Your task to perform on an android device: How much does a 3 bedroom apartment rent for in New York? Image 0: 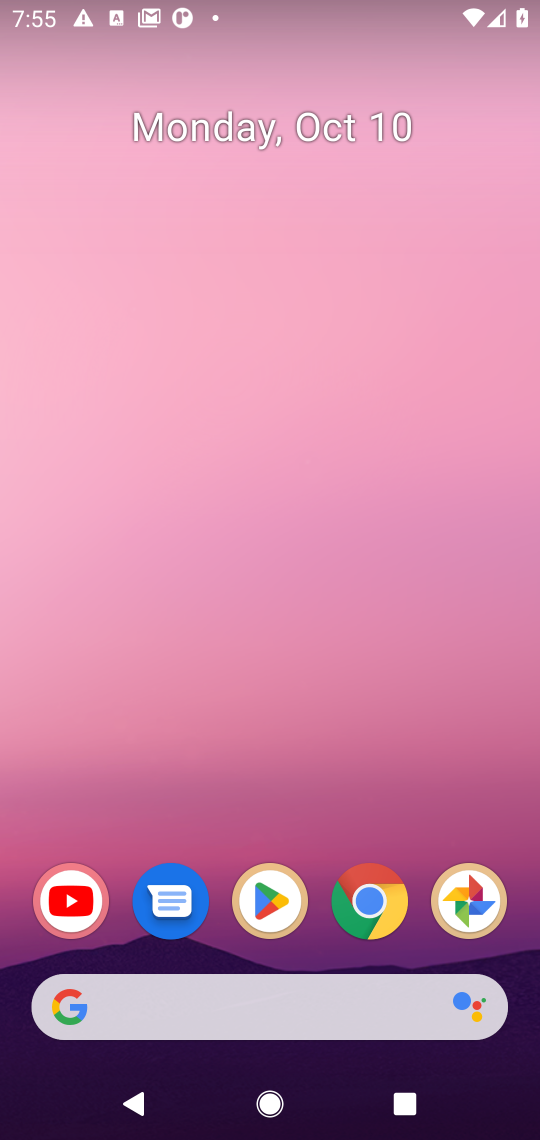
Step 0: click (180, 1004)
Your task to perform on an android device: How much does a 3 bedroom apartment rent for in New York? Image 1: 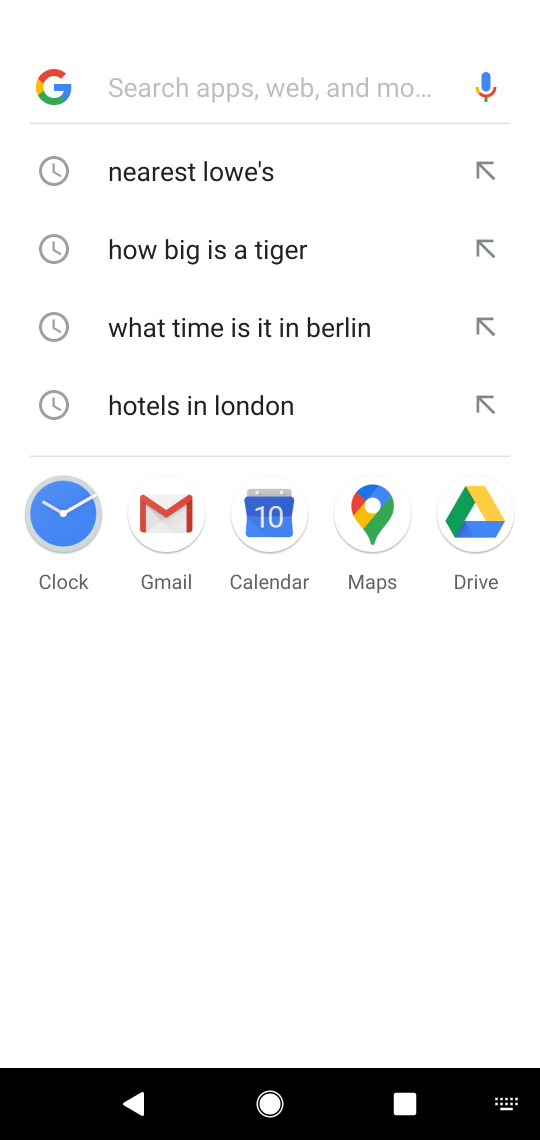
Step 1: type "3 bedroom apartment rent for in New York"
Your task to perform on an android device: How much does a 3 bedroom apartment rent for in New York? Image 2: 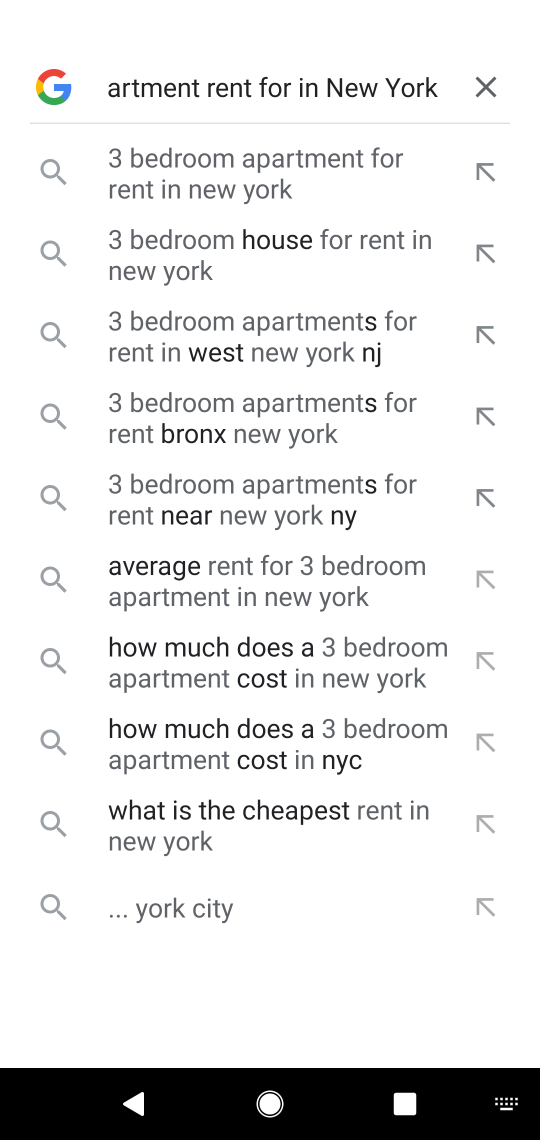
Step 2: press enter
Your task to perform on an android device: How much does a 3 bedroom apartment rent for in New York? Image 3: 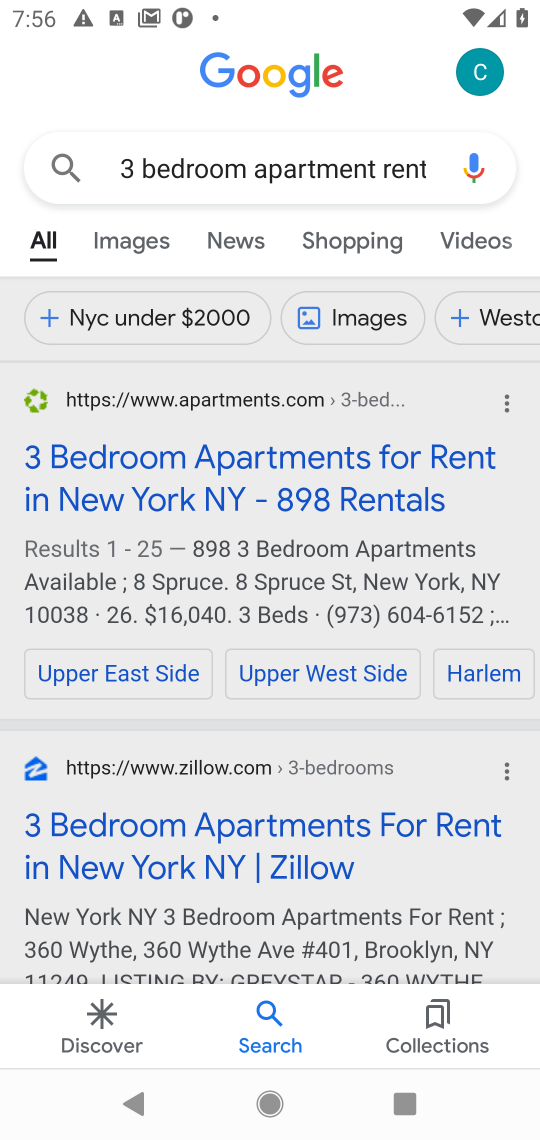
Step 3: drag from (274, 727) to (285, 446)
Your task to perform on an android device: How much does a 3 bedroom apartment rent for in New York? Image 4: 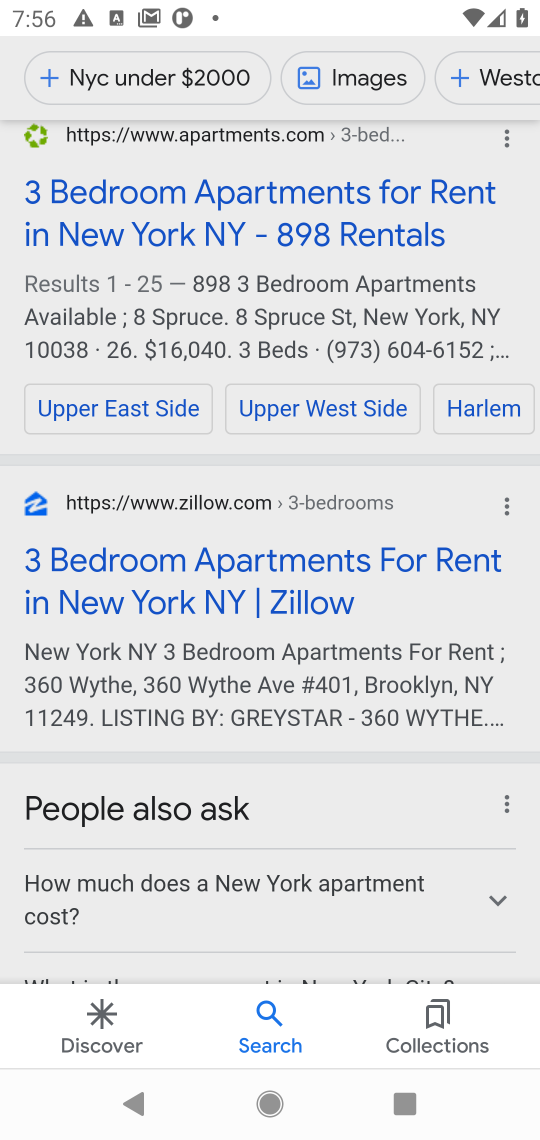
Step 4: drag from (351, 796) to (392, 236)
Your task to perform on an android device: How much does a 3 bedroom apartment rent for in New York? Image 5: 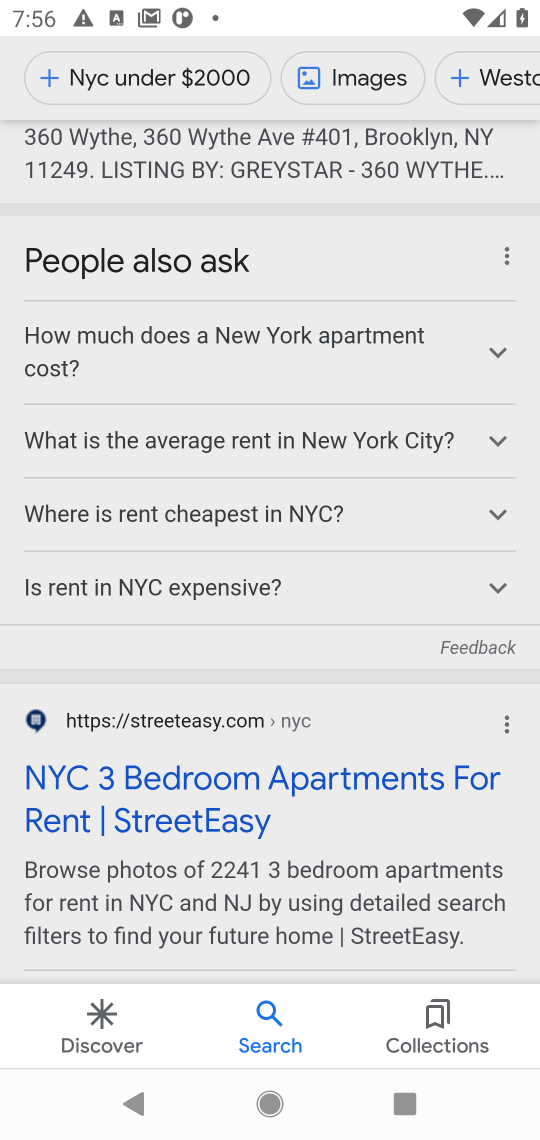
Step 5: drag from (367, 691) to (379, 277)
Your task to perform on an android device: How much does a 3 bedroom apartment rent for in New York? Image 6: 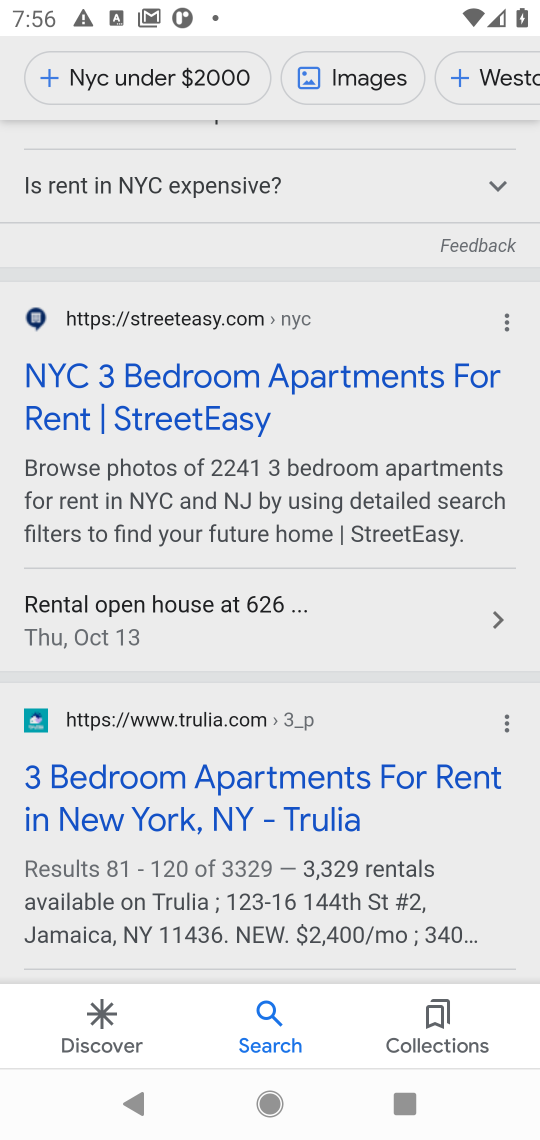
Step 6: drag from (352, 208) to (298, 1133)
Your task to perform on an android device: How much does a 3 bedroom apartment rent for in New York? Image 7: 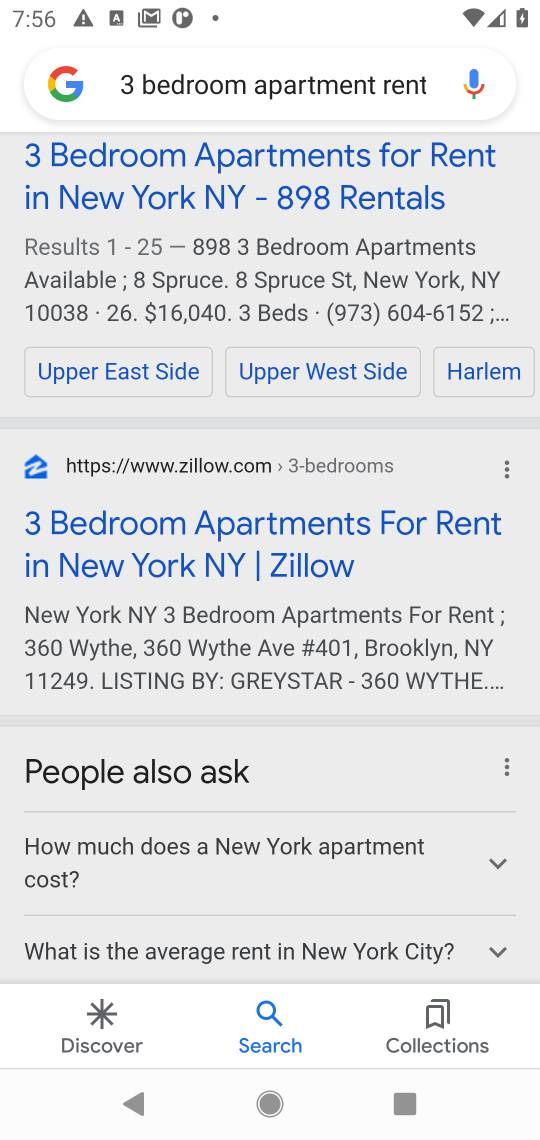
Step 7: drag from (435, 548) to (430, 894)
Your task to perform on an android device: How much does a 3 bedroom apartment rent for in New York? Image 8: 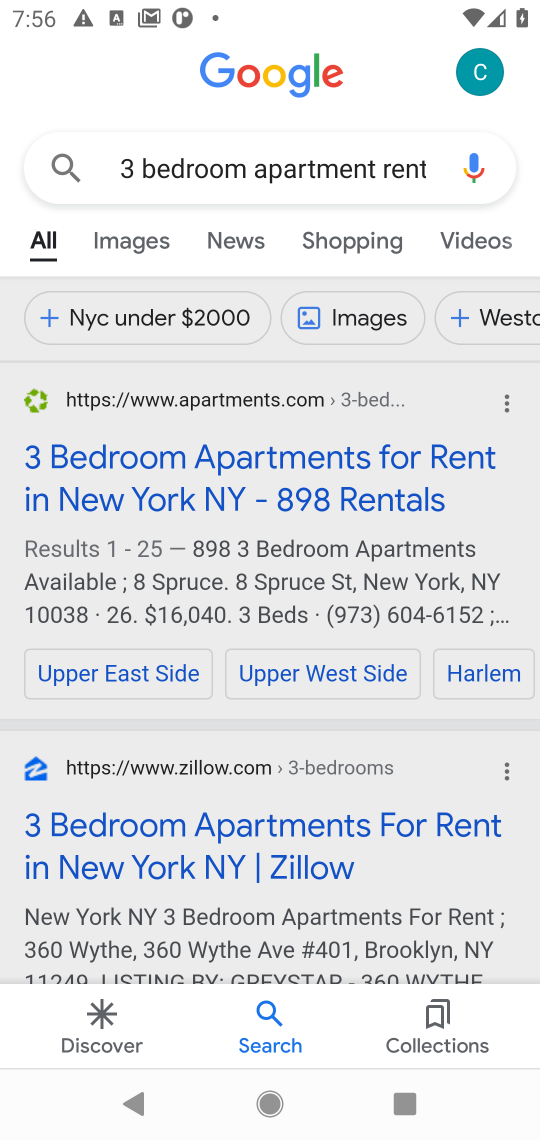
Step 8: click (287, 487)
Your task to perform on an android device: How much does a 3 bedroom apartment rent for in New York? Image 9: 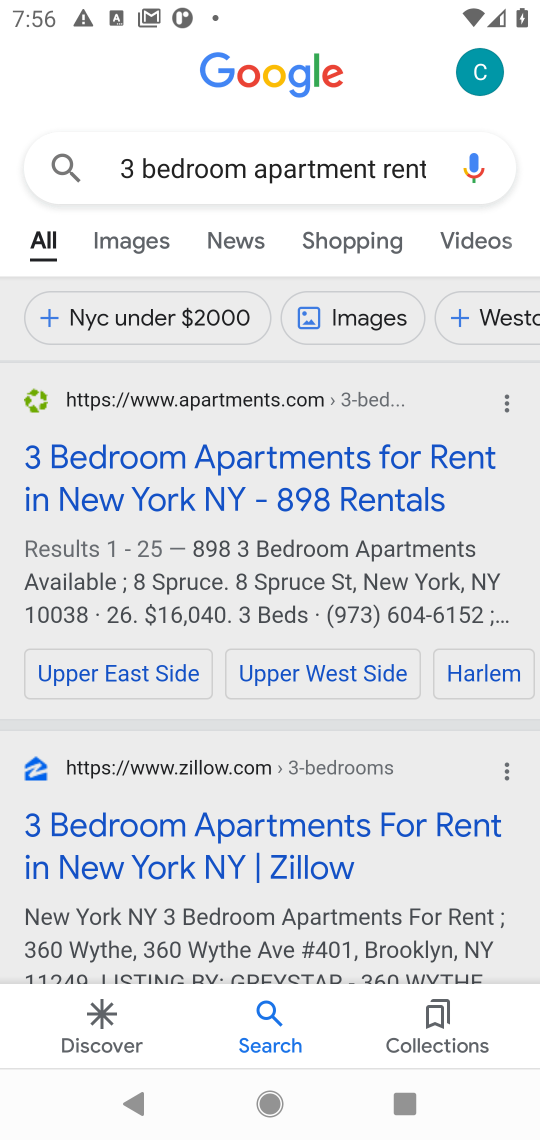
Step 9: click (287, 487)
Your task to perform on an android device: How much does a 3 bedroom apartment rent for in New York? Image 10: 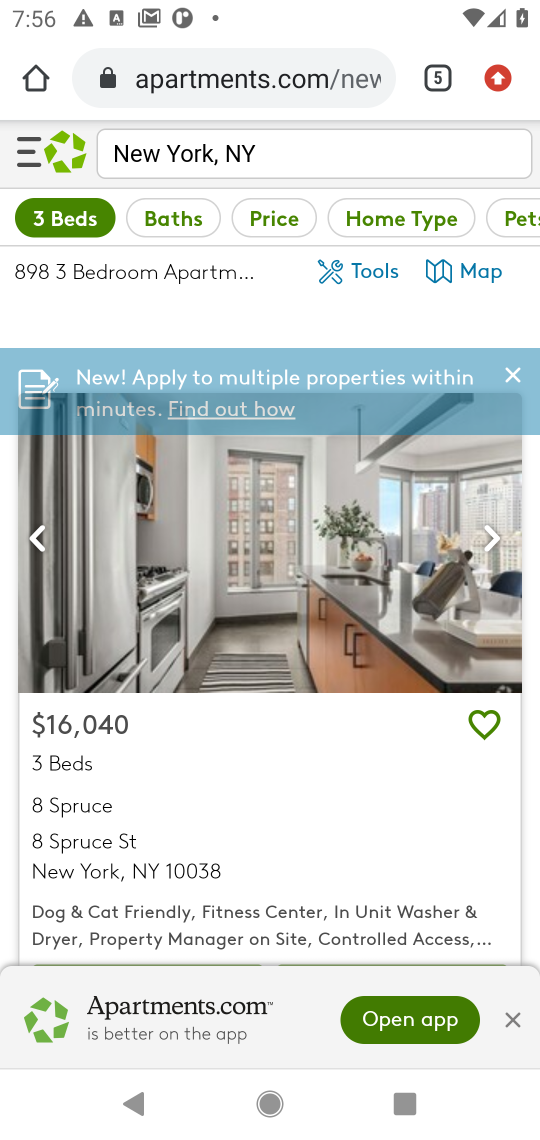
Step 10: drag from (292, 751) to (334, 421)
Your task to perform on an android device: How much does a 3 bedroom apartment rent for in New York? Image 11: 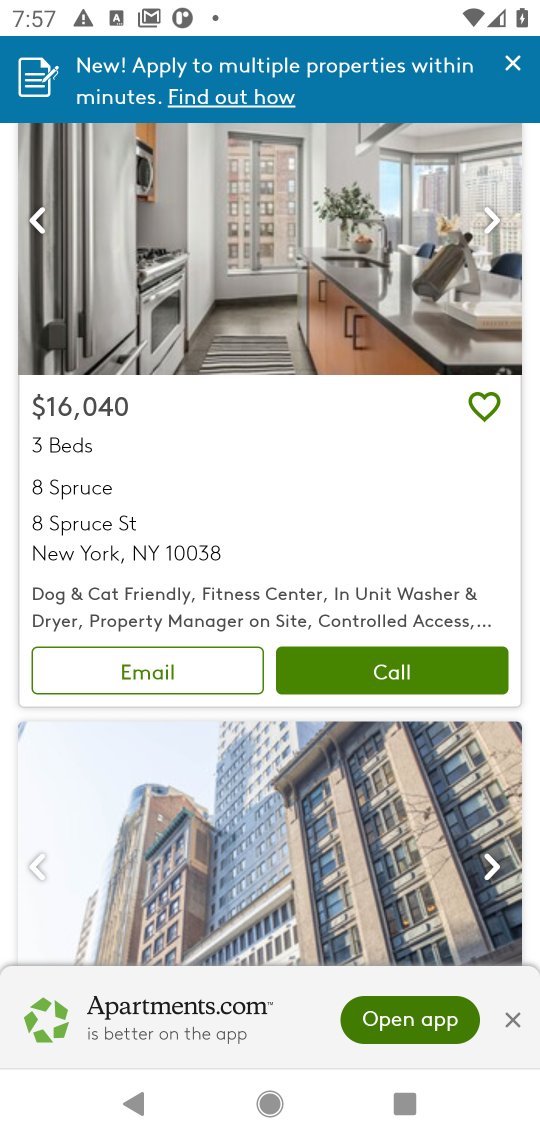
Step 11: drag from (221, 848) to (288, 221)
Your task to perform on an android device: How much does a 3 bedroom apartment rent for in New York? Image 12: 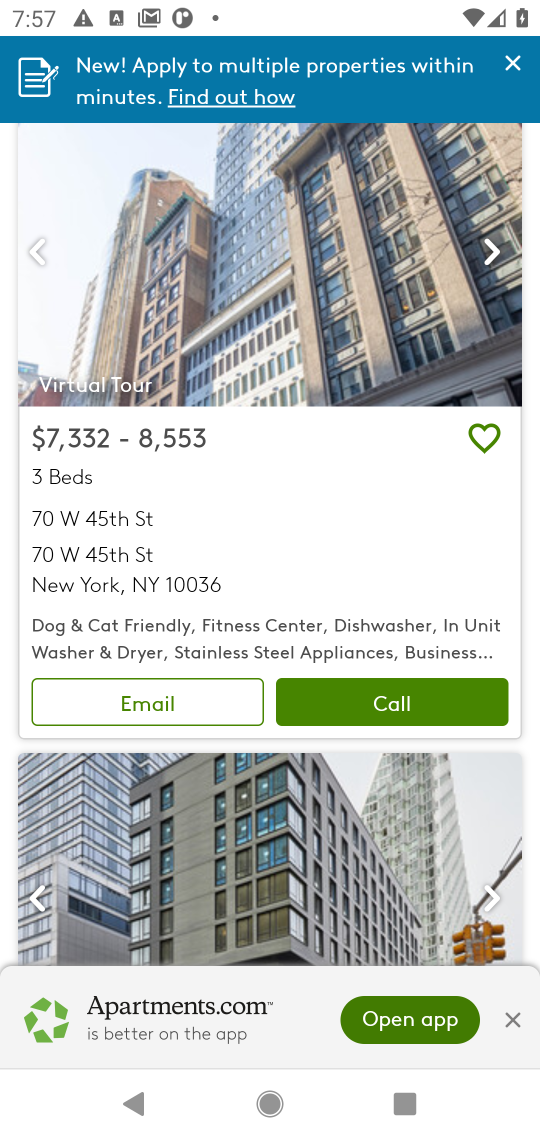
Step 12: drag from (288, 842) to (318, 341)
Your task to perform on an android device: How much does a 3 bedroom apartment rent for in New York? Image 13: 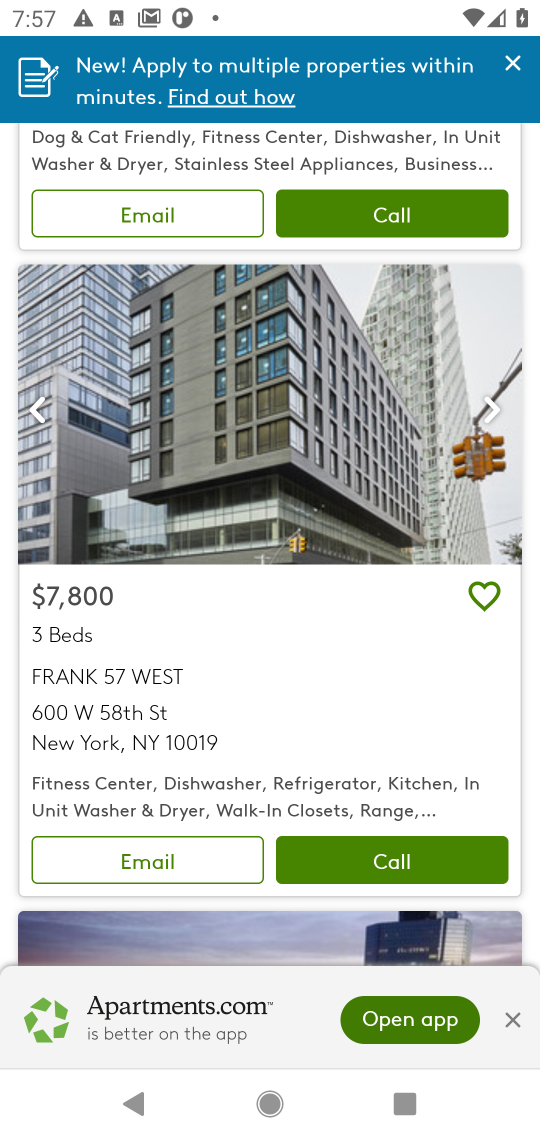
Step 13: drag from (280, 727) to (303, 508)
Your task to perform on an android device: How much does a 3 bedroom apartment rent for in New York? Image 14: 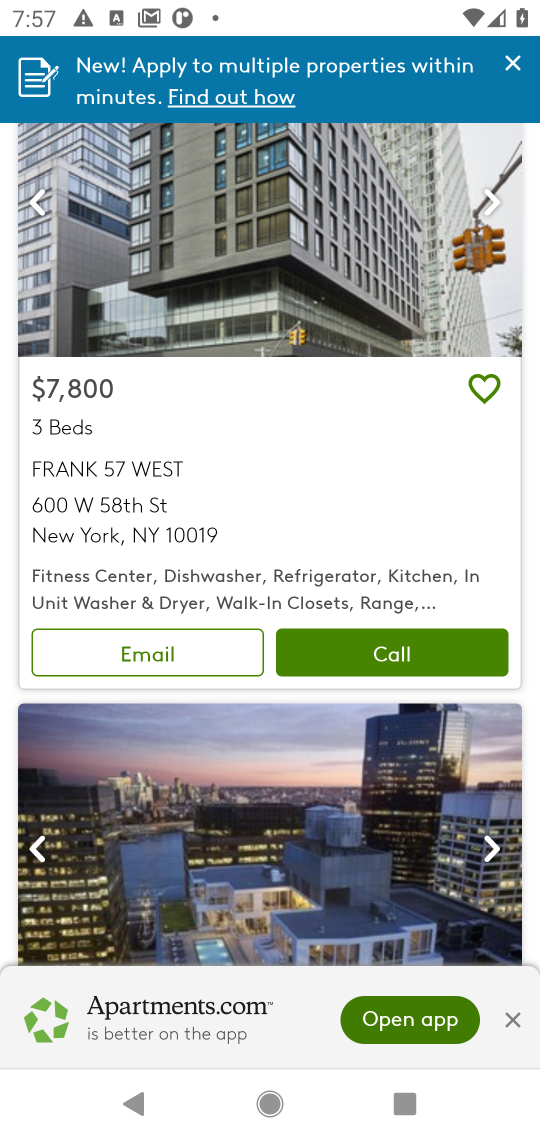
Step 14: drag from (330, 795) to (337, 198)
Your task to perform on an android device: How much does a 3 bedroom apartment rent for in New York? Image 15: 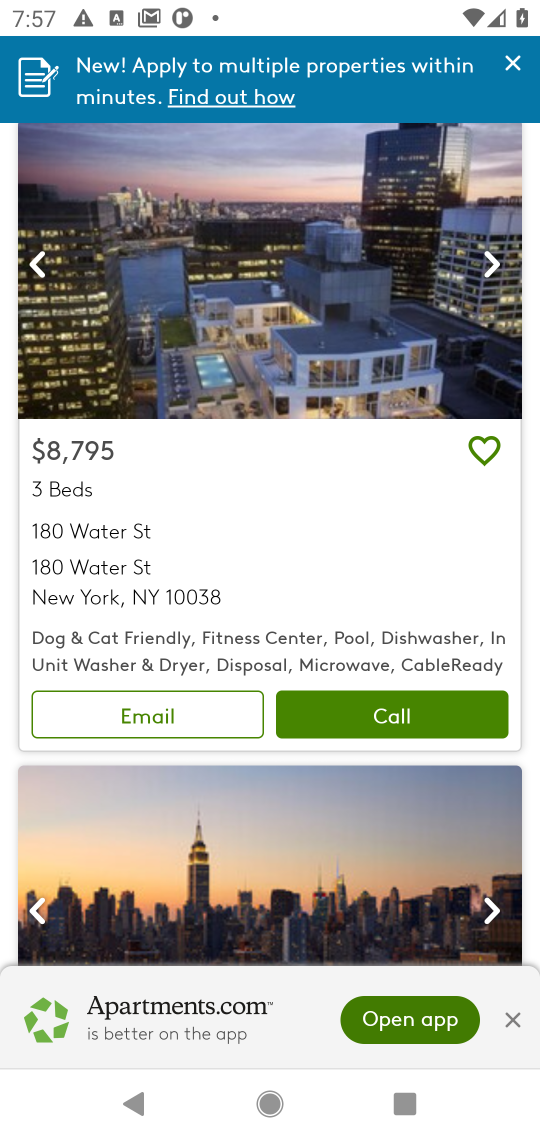
Step 15: click (290, 399)
Your task to perform on an android device: How much does a 3 bedroom apartment rent for in New York? Image 16: 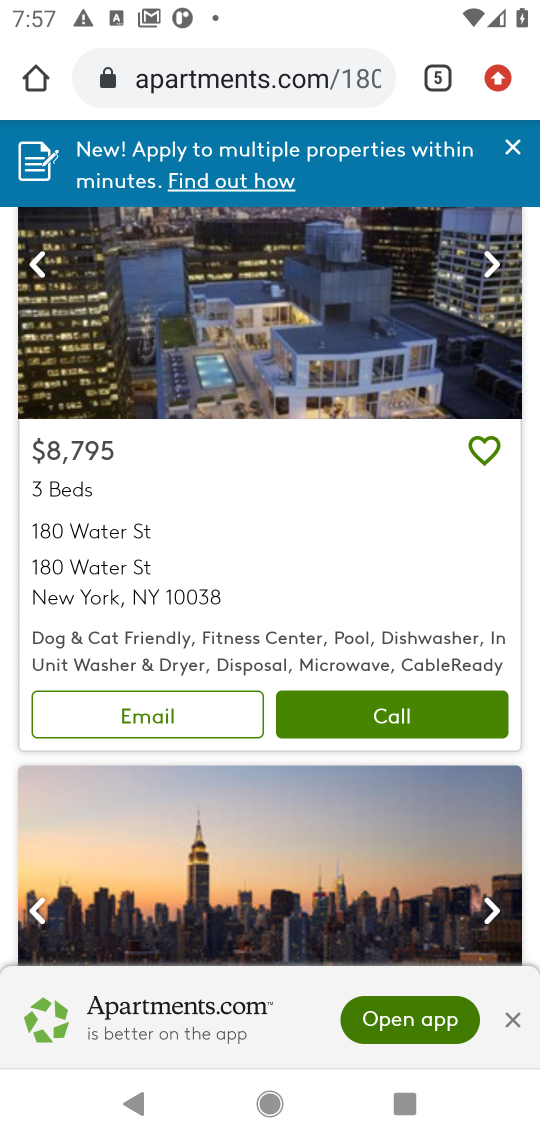
Step 16: drag from (339, 575) to (346, 384)
Your task to perform on an android device: How much does a 3 bedroom apartment rent for in New York? Image 17: 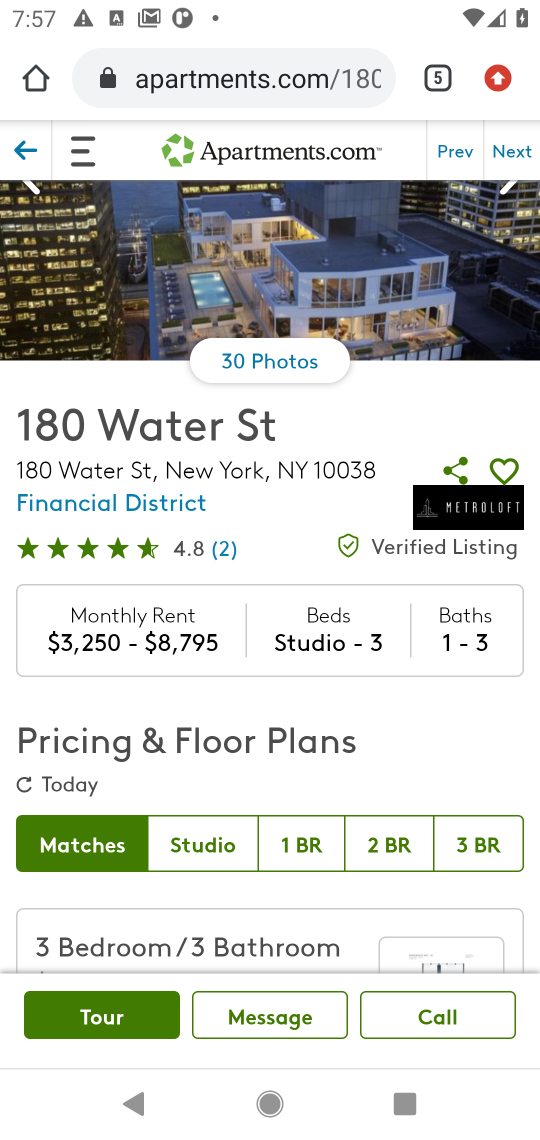
Step 17: drag from (375, 763) to (382, 675)
Your task to perform on an android device: How much does a 3 bedroom apartment rent for in New York? Image 18: 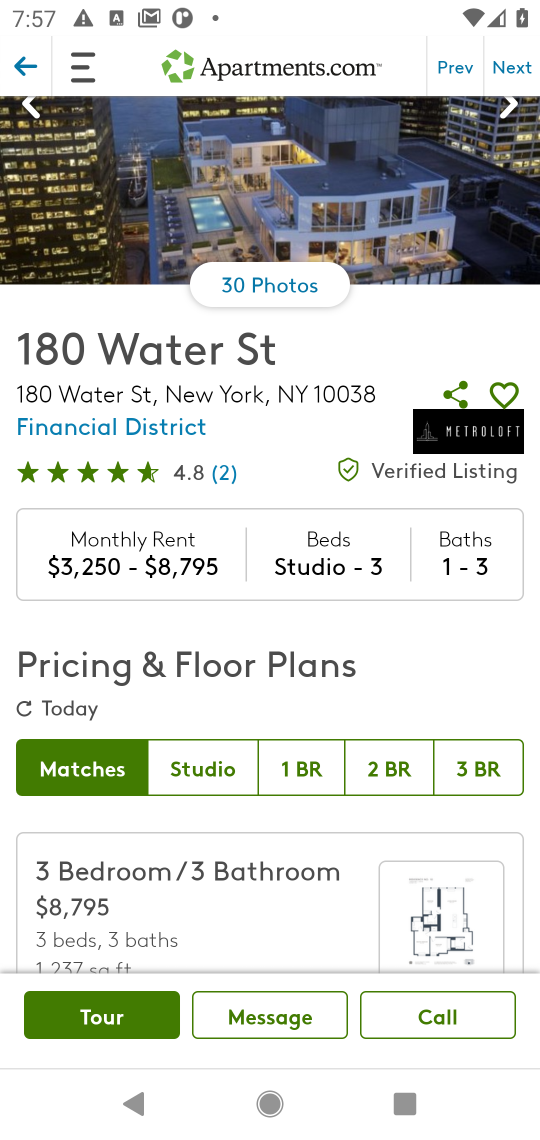
Step 18: drag from (291, 630) to (282, 277)
Your task to perform on an android device: How much does a 3 bedroom apartment rent for in New York? Image 19: 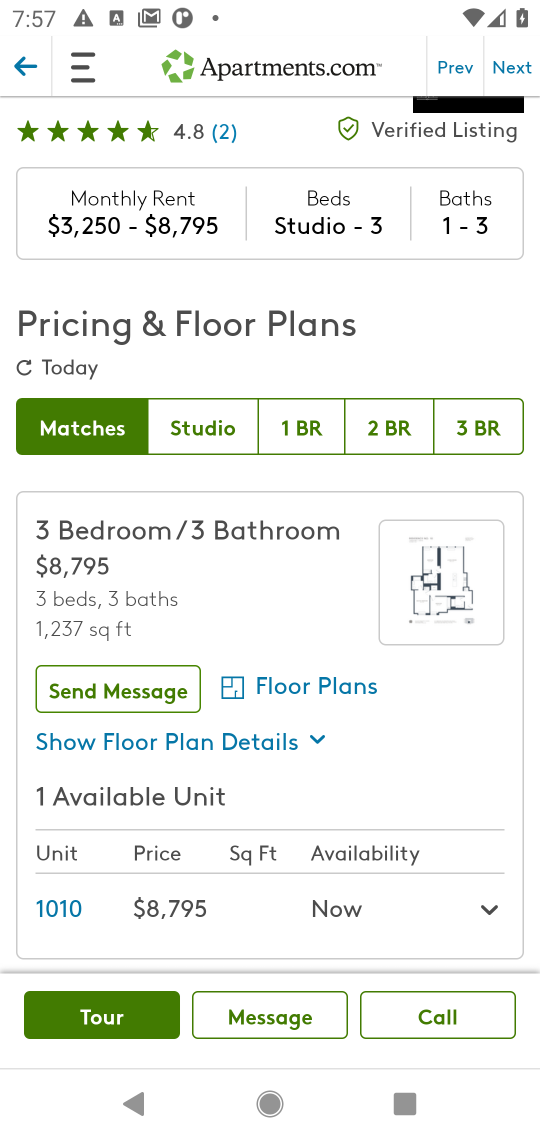
Step 19: drag from (369, 777) to (332, 262)
Your task to perform on an android device: How much does a 3 bedroom apartment rent for in New York? Image 20: 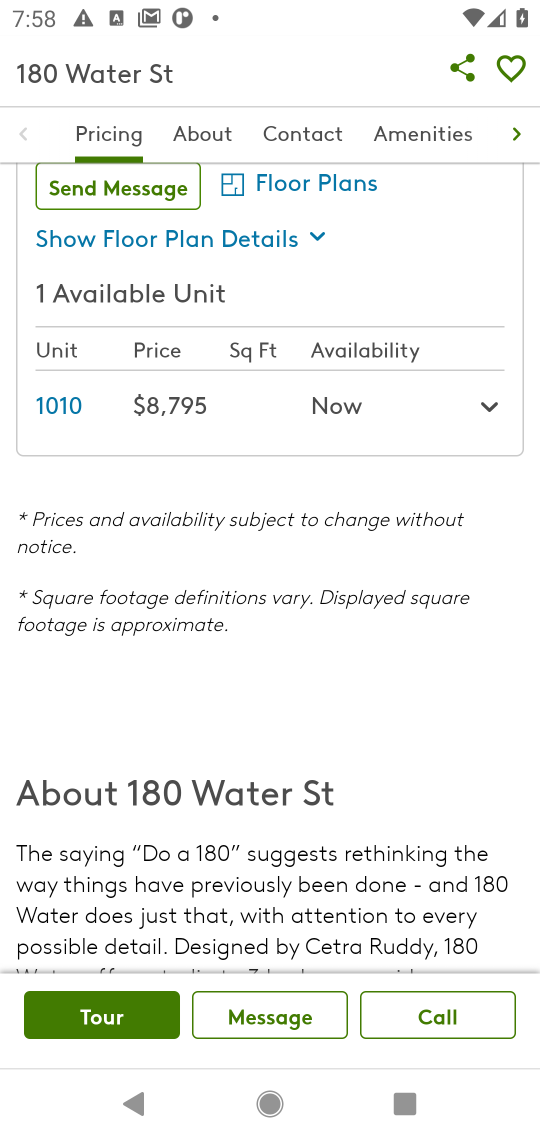
Step 20: drag from (335, 415) to (342, 166)
Your task to perform on an android device: How much does a 3 bedroom apartment rent for in New York? Image 21: 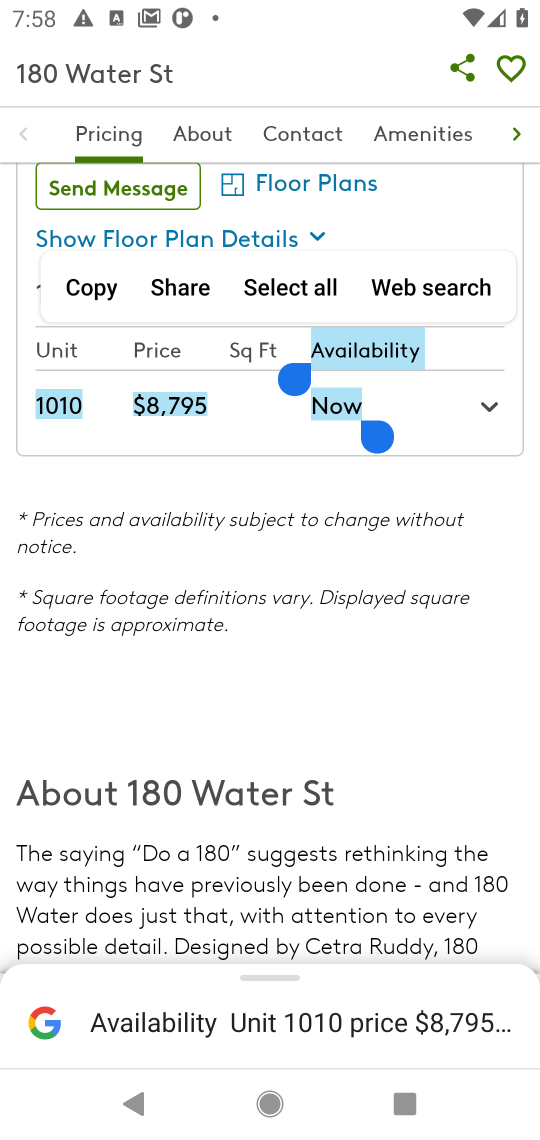
Step 21: click (360, 672)
Your task to perform on an android device: How much does a 3 bedroom apartment rent for in New York? Image 22: 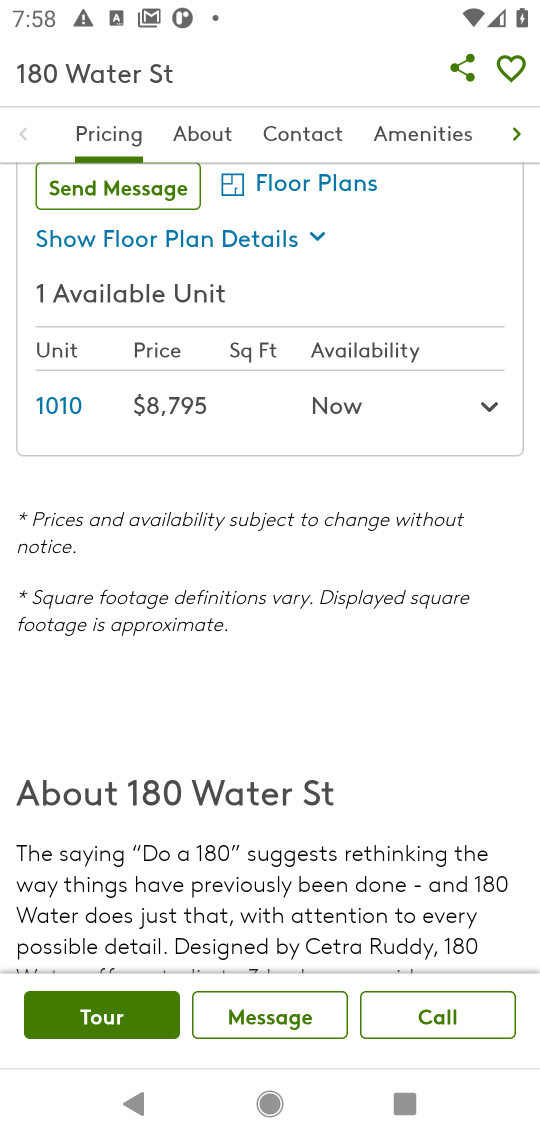
Step 22: drag from (361, 646) to (353, 315)
Your task to perform on an android device: How much does a 3 bedroom apartment rent for in New York? Image 23: 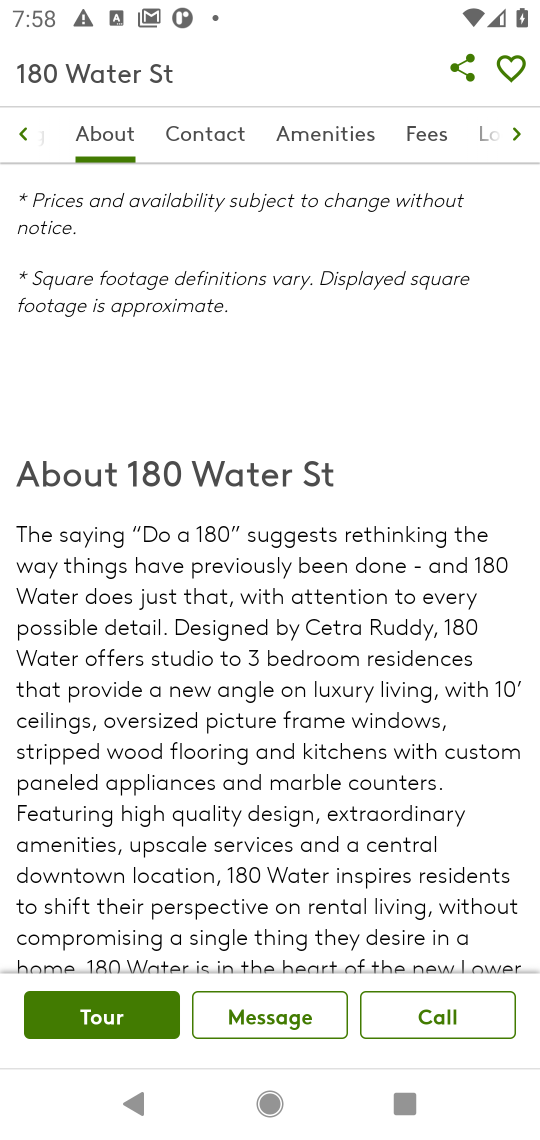
Step 23: drag from (299, 336) to (297, 190)
Your task to perform on an android device: How much does a 3 bedroom apartment rent for in New York? Image 24: 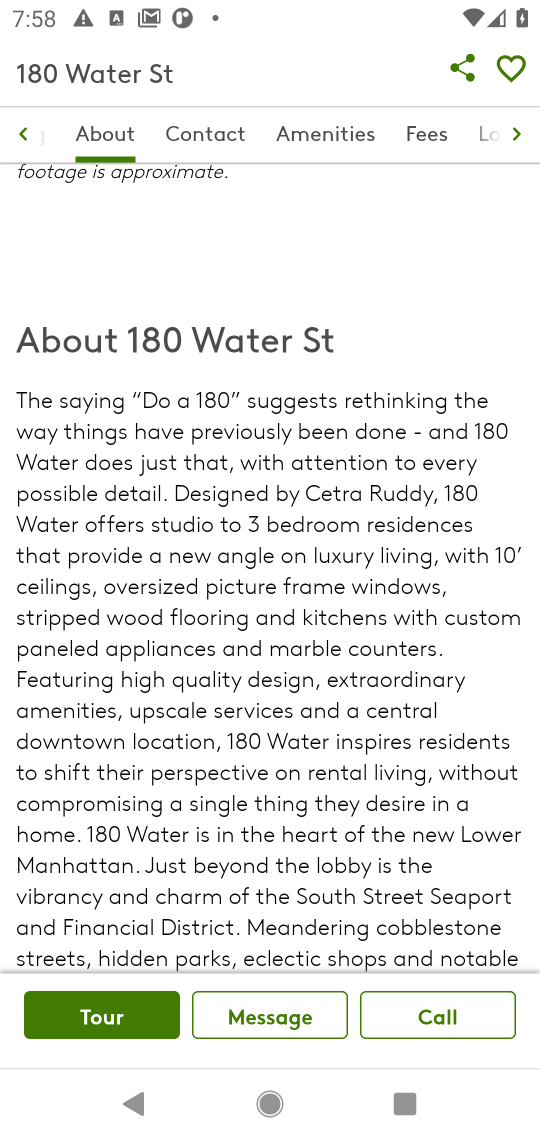
Step 24: drag from (389, 365) to (371, 186)
Your task to perform on an android device: How much does a 3 bedroom apartment rent for in New York? Image 25: 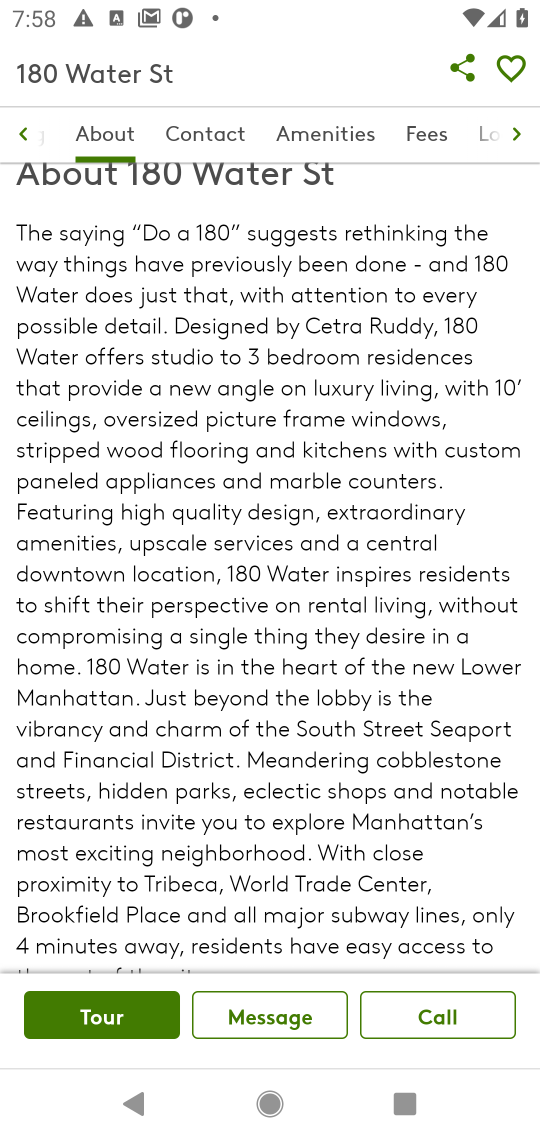
Step 25: drag from (316, 596) to (320, 532)
Your task to perform on an android device: How much does a 3 bedroom apartment rent for in New York? Image 26: 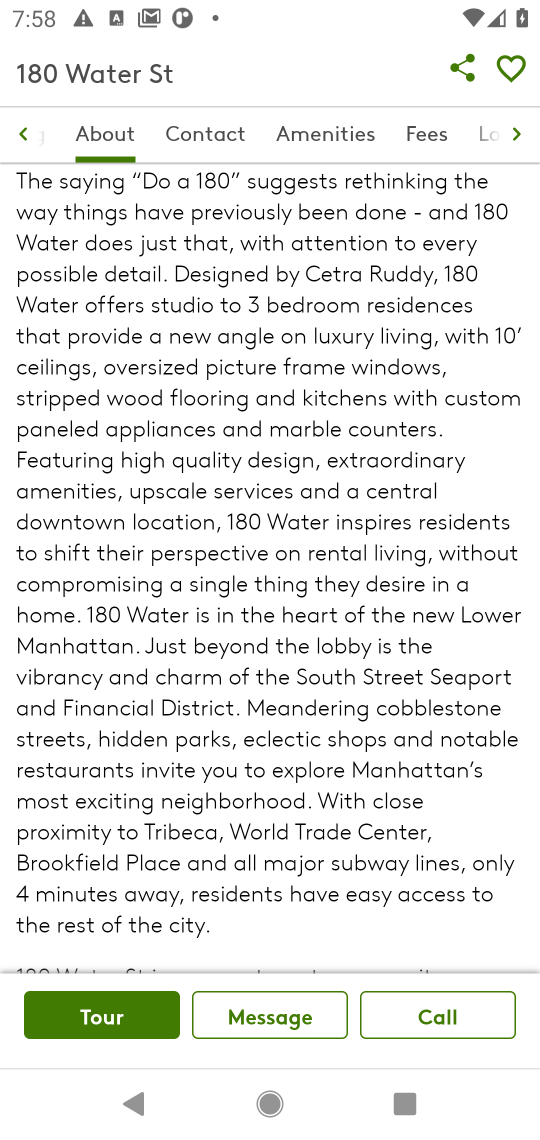
Step 26: drag from (296, 490) to (283, 319)
Your task to perform on an android device: How much does a 3 bedroom apartment rent for in New York? Image 27: 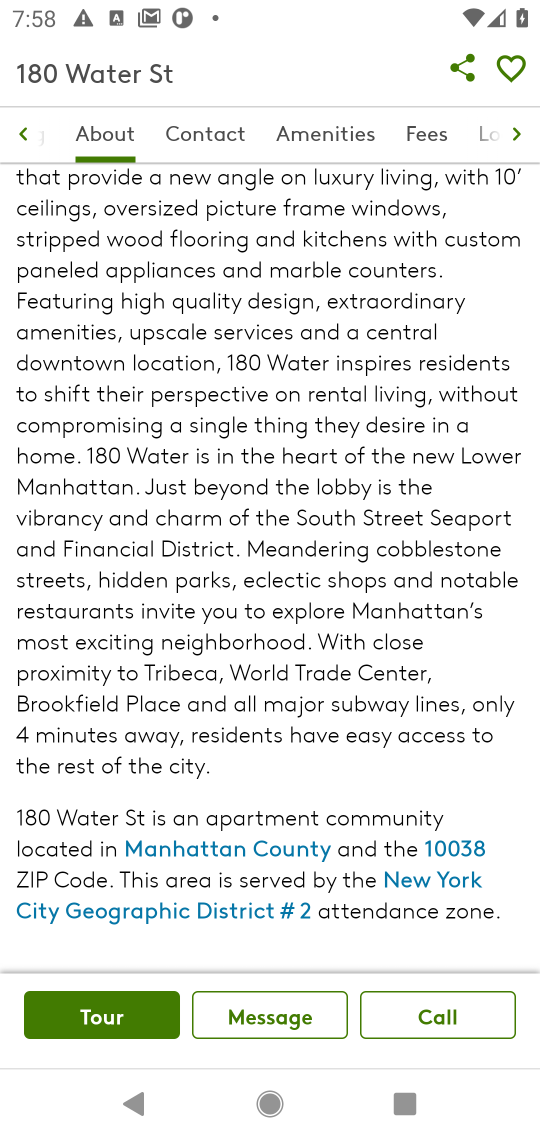
Step 27: drag from (287, 566) to (283, 399)
Your task to perform on an android device: How much does a 3 bedroom apartment rent for in New York? Image 28: 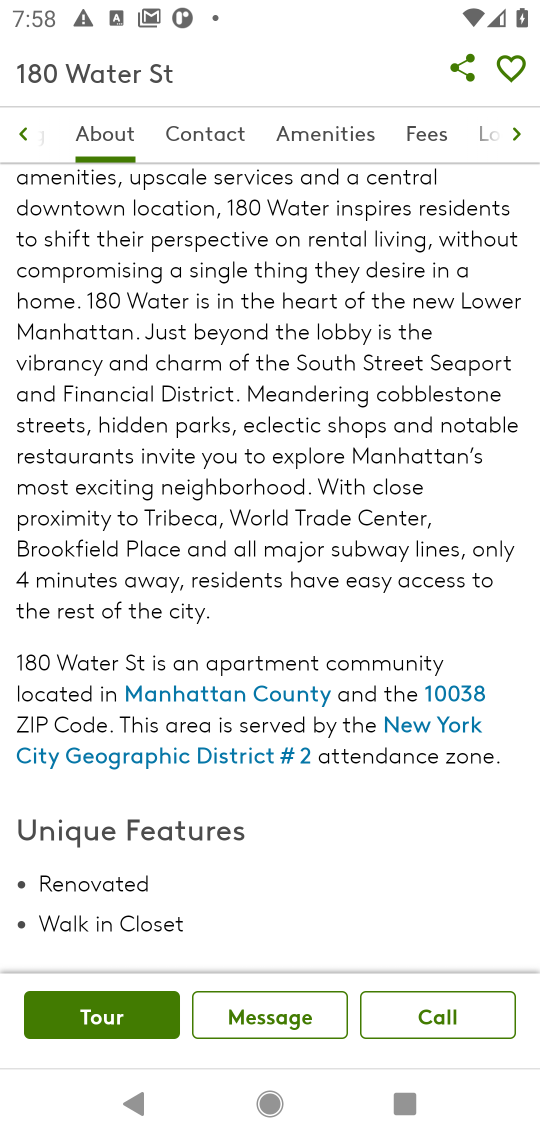
Step 28: drag from (283, 347) to (283, 595)
Your task to perform on an android device: How much does a 3 bedroom apartment rent for in New York? Image 29: 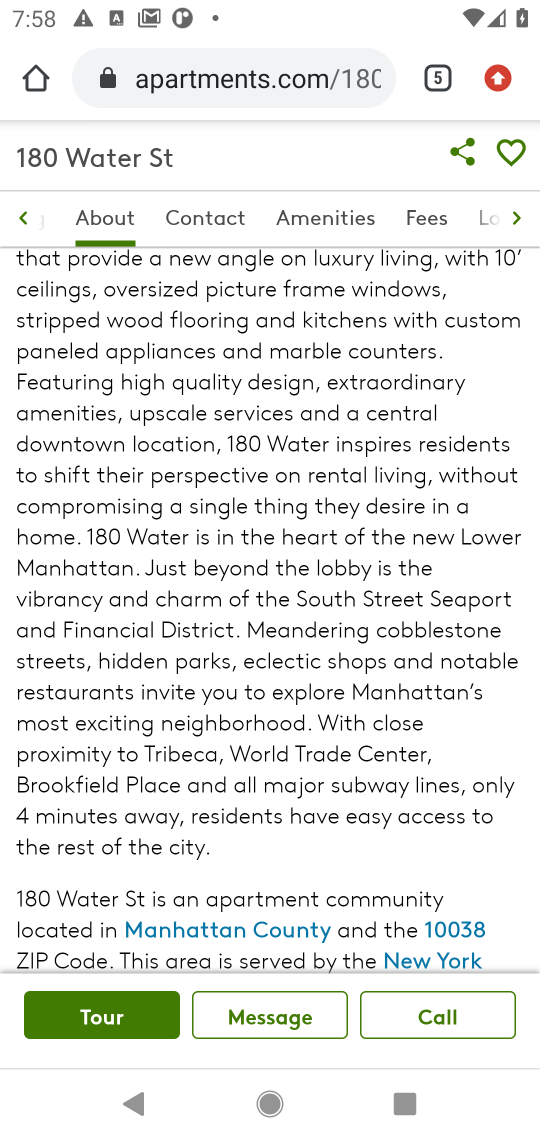
Step 29: drag from (252, 574) to (302, 622)
Your task to perform on an android device: How much does a 3 bedroom apartment rent for in New York? Image 30: 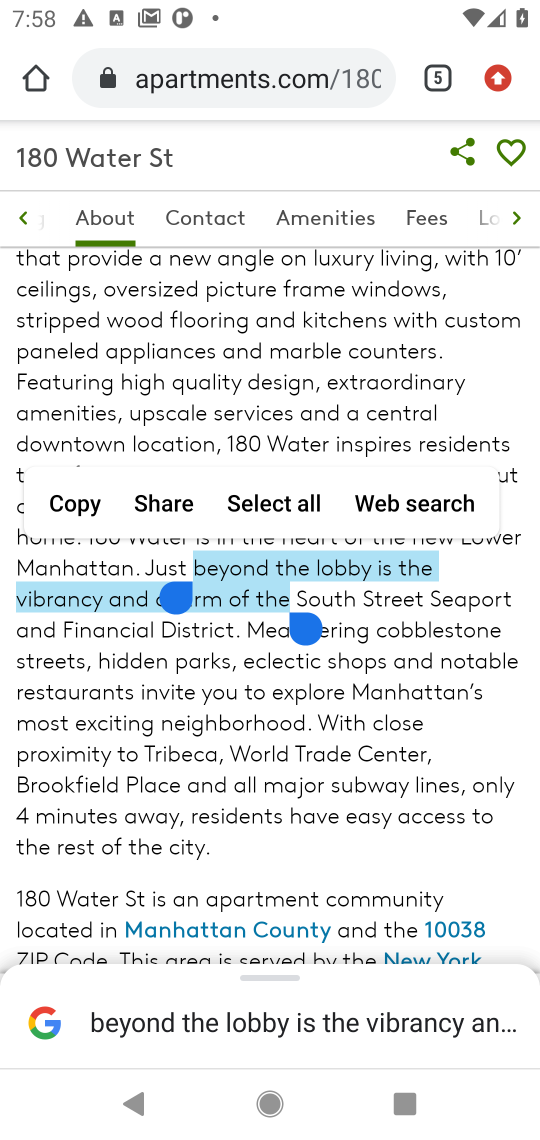
Step 30: click (302, 625)
Your task to perform on an android device: How much does a 3 bedroom apartment rent for in New York? Image 31: 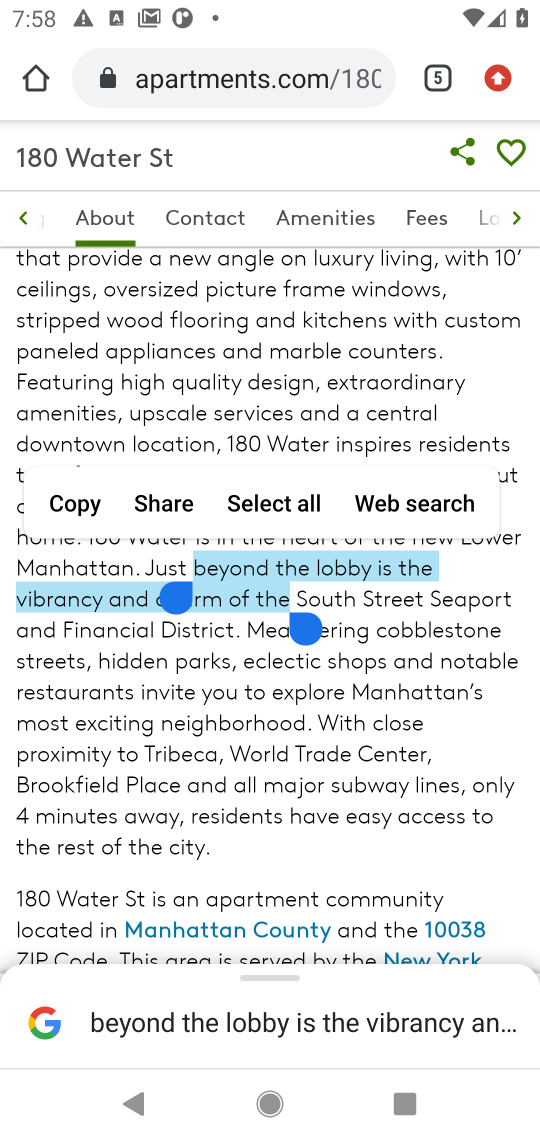
Step 31: click (266, 656)
Your task to perform on an android device: How much does a 3 bedroom apartment rent for in New York? Image 32: 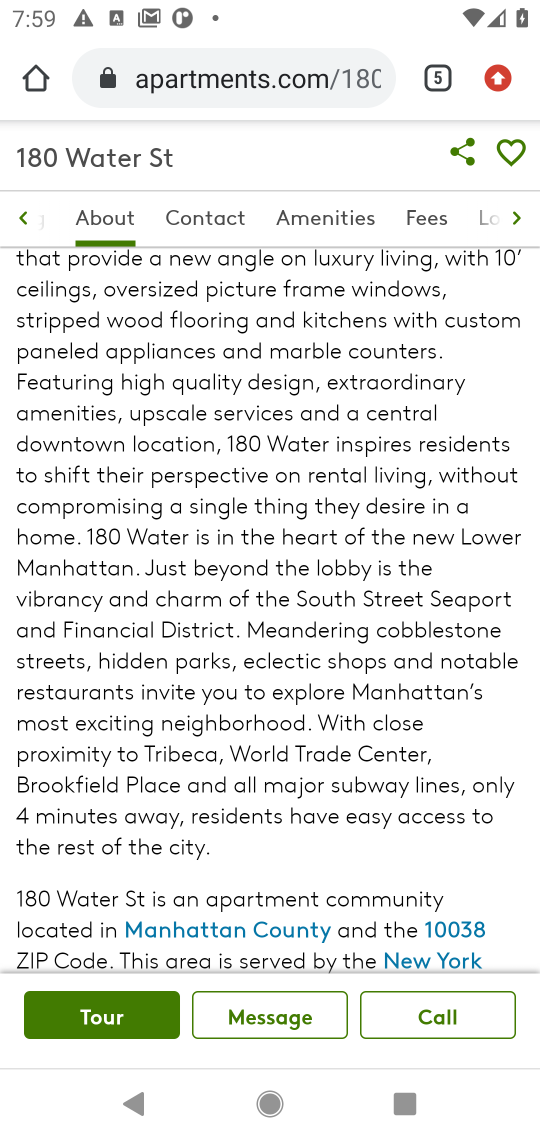
Step 32: task complete